Your task to perform on an android device: change keyboard looks Image 0: 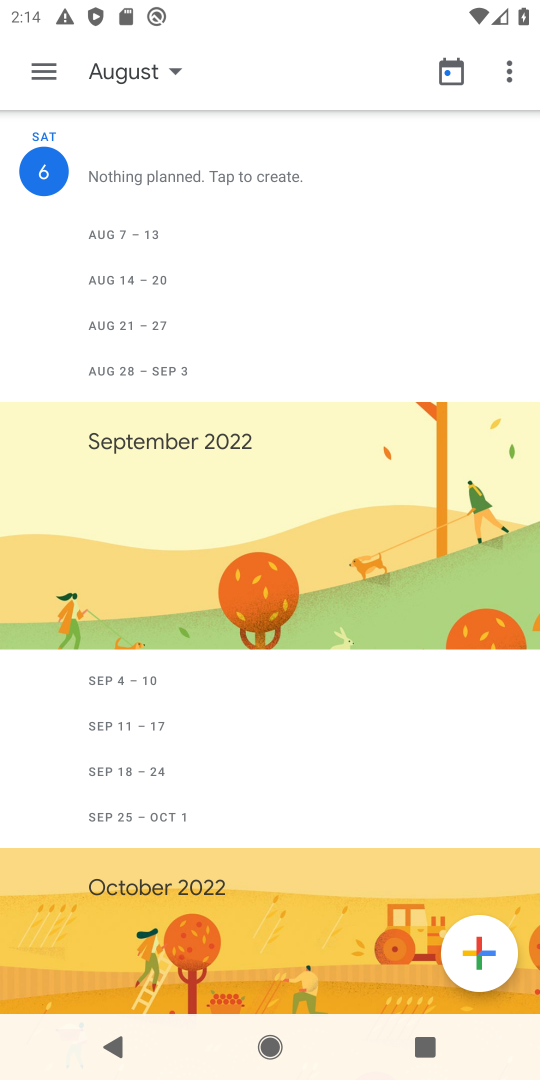
Step 0: press home button
Your task to perform on an android device: change keyboard looks Image 1: 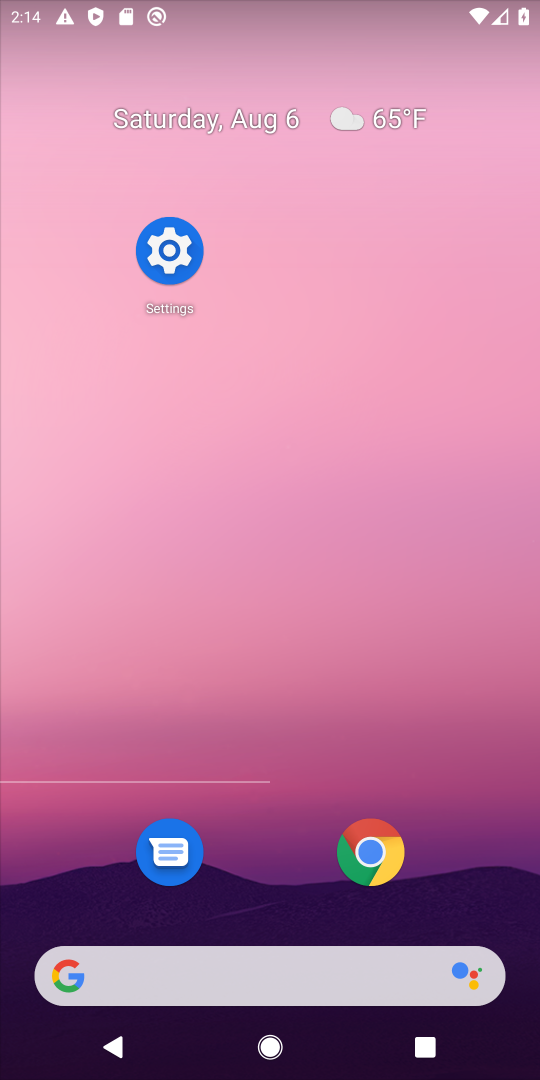
Step 1: click (166, 242)
Your task to perform on an android device: change keyboard looks Image 2: 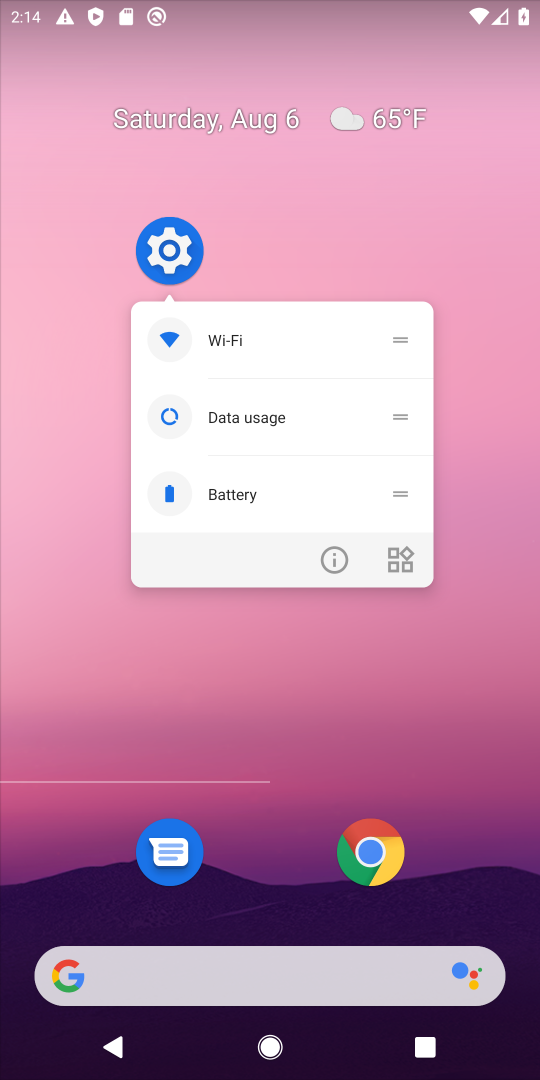
Step 2: click (161, 251)
Your task to perform on an android device: change keyboard looks Image 3: 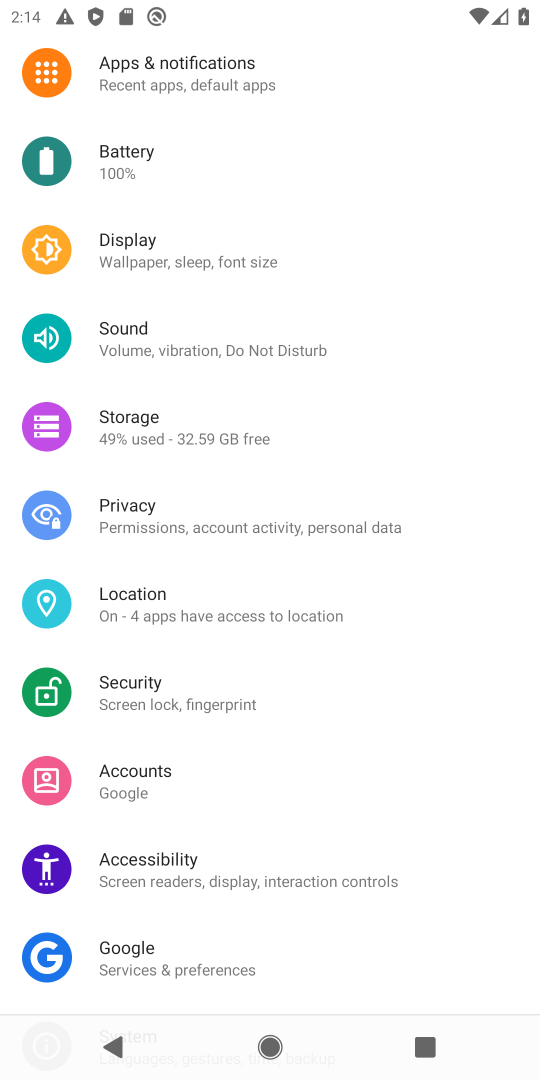
Step 3: drag from (323, 819) to (321, 351)
Your task to perform on an android device: change keyboard looks Image 4: 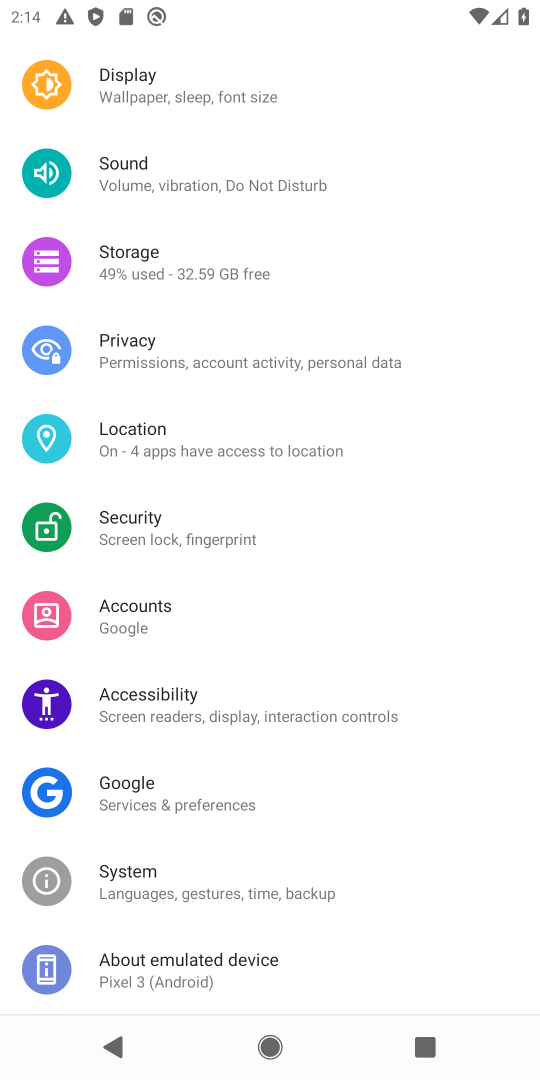
Step 4: drag from (125, 959) to (218, 451)
Your task to perform on an android device: change keyboard looks Image 5: 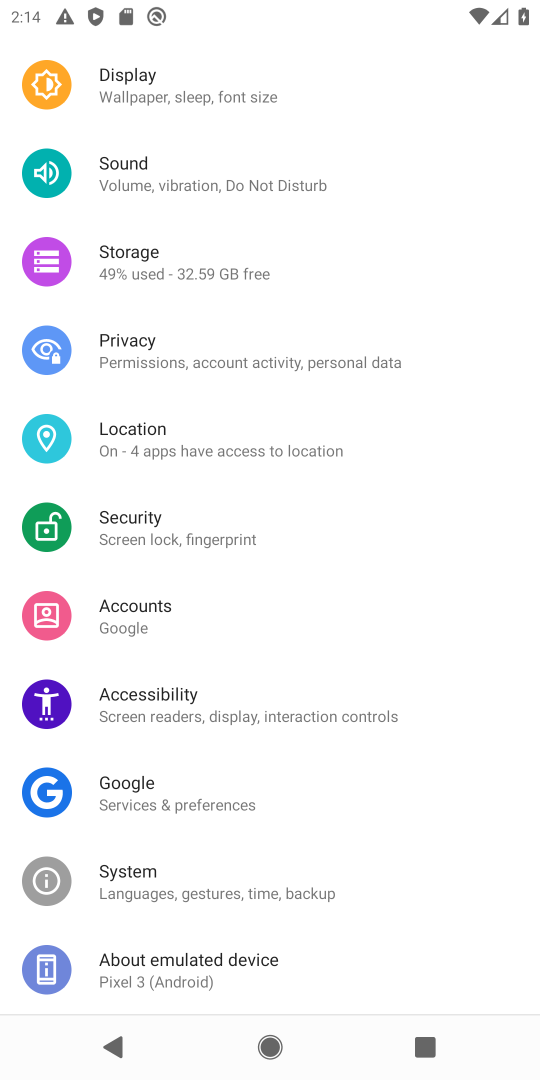
Step 5: click (138, 897)
Your task to perform on an android device: change keyboard looks Image 6: 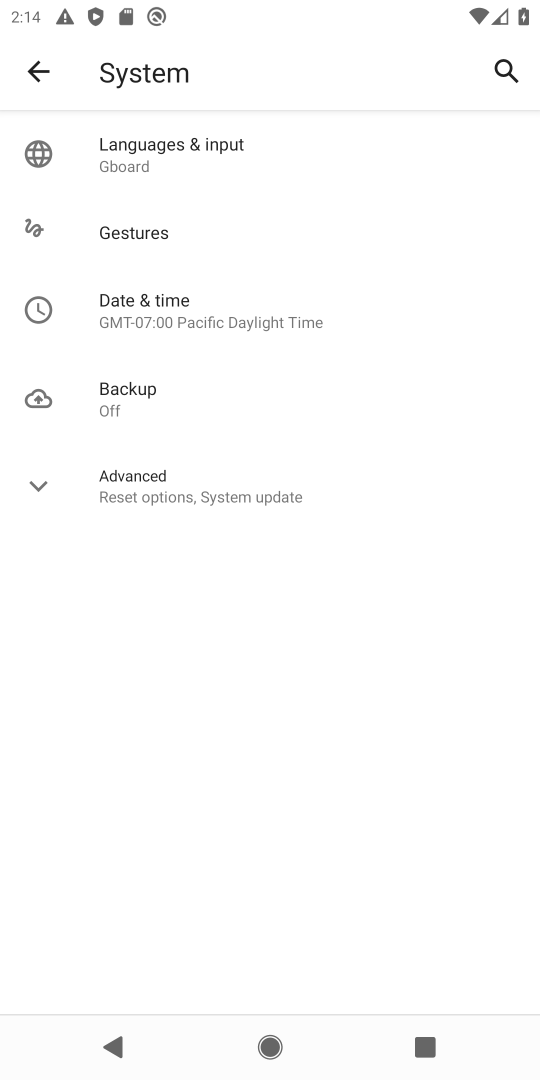
Step 6: click (187, 174)
Your task to perform on an android device: change keyboard looks Image 7: 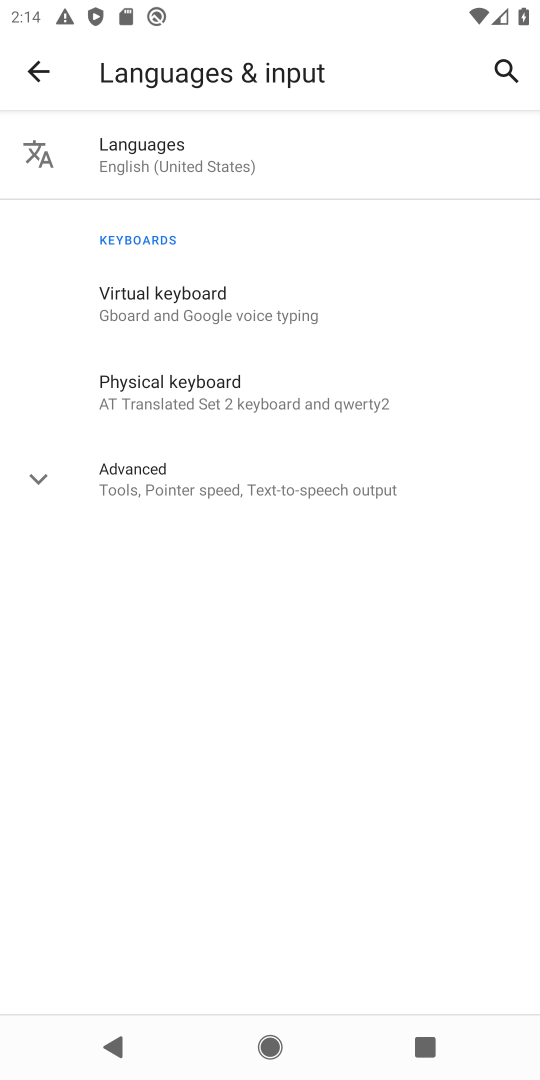
Step 7: click (184, 310)
Your task to perform on an android device: change keyboard looks Image 8: 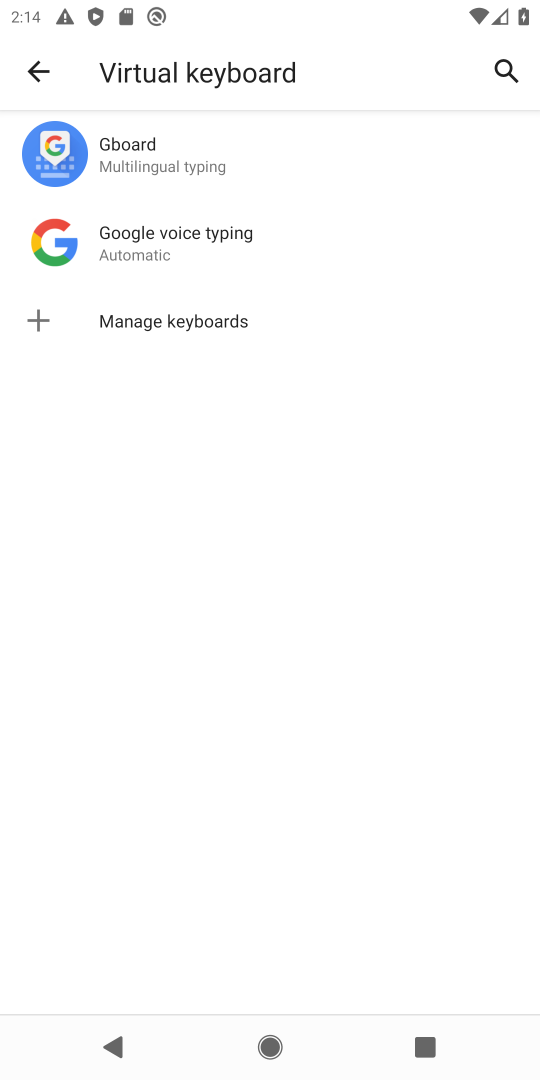
Step 8: click (188, 160)
Your task to perform on an android device: change keyboard looks Image 9: 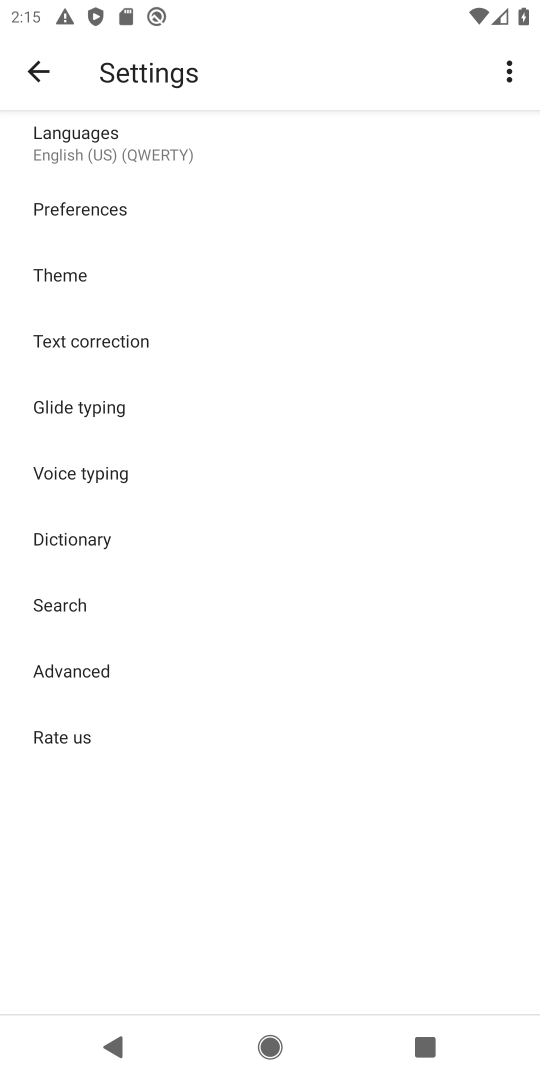
Step 9: click (68, 302)
Your task to perform on an android device: change keyboard looks Image 10: 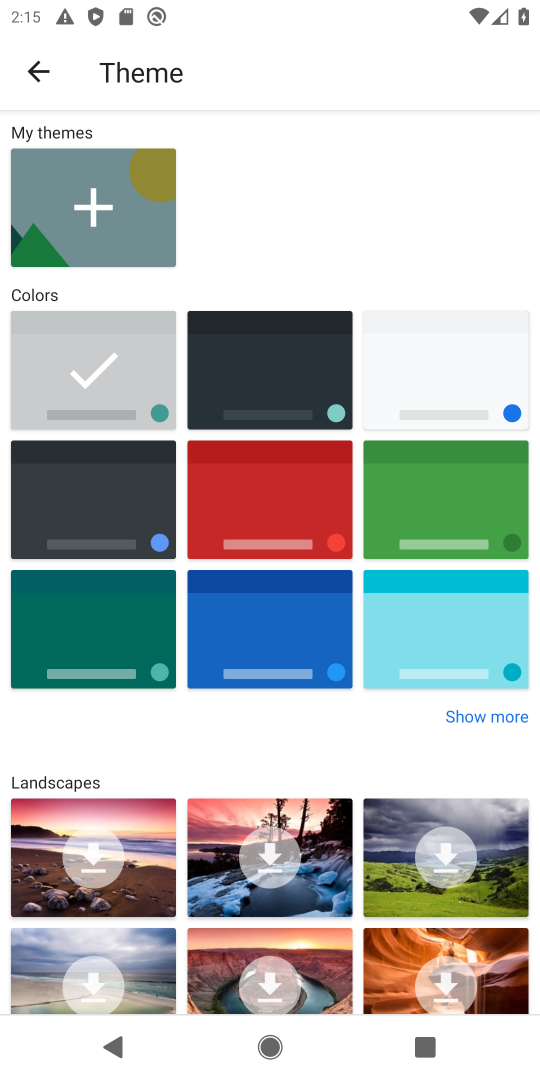
Step 10: click (303, 385)
Your task to perform on an android device: change keyboard looks Image 11: 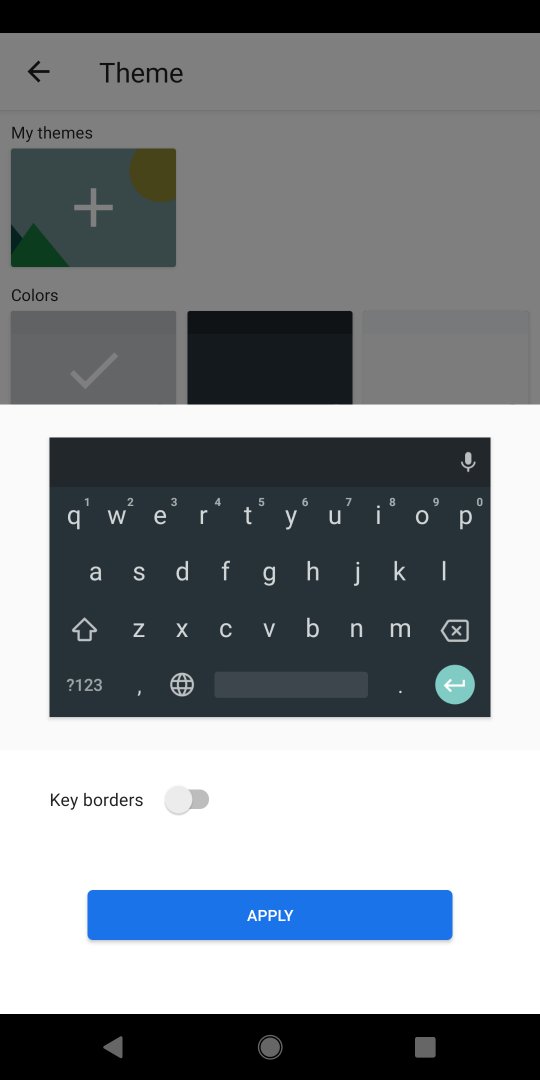
Step 11: click (187, 802)
Your task to perform on an android device: change keyboard looks Image 12: 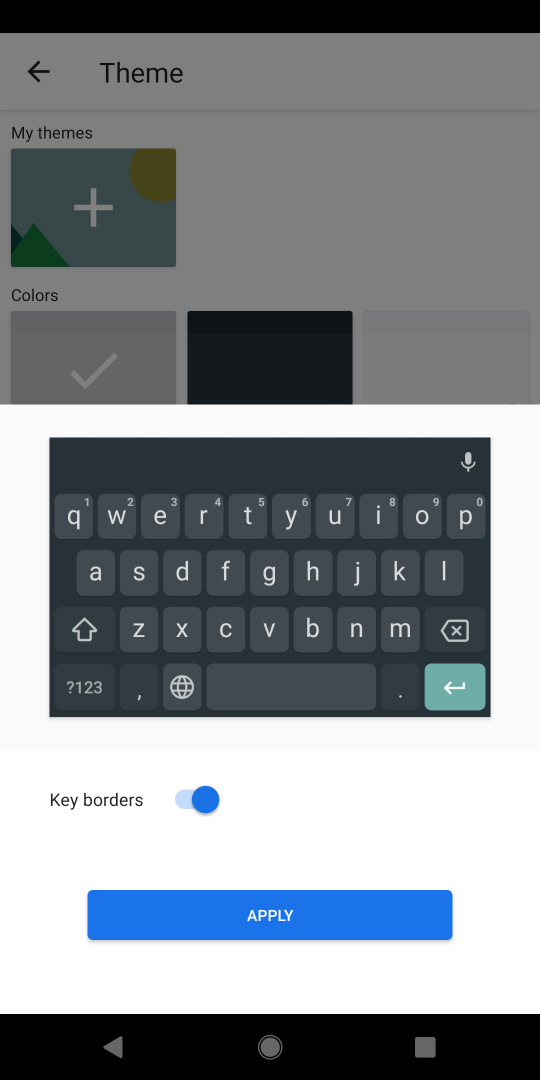
Step 12: click (291, 923)
Your task to perform on an android device: change keyboard looks Image 13: 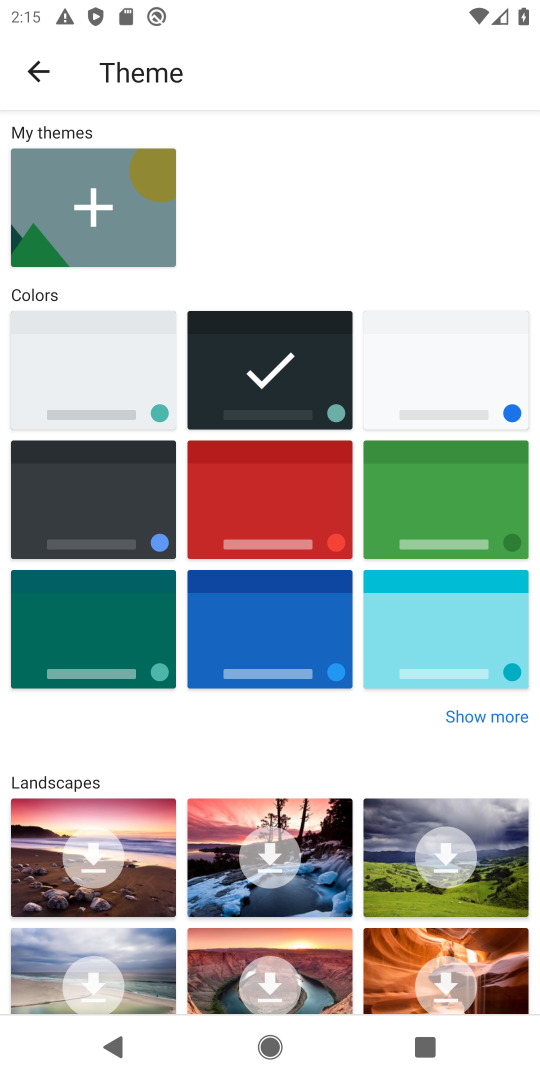
Step 13: task complete